Your task to perform on an android device: check android version Image 0: 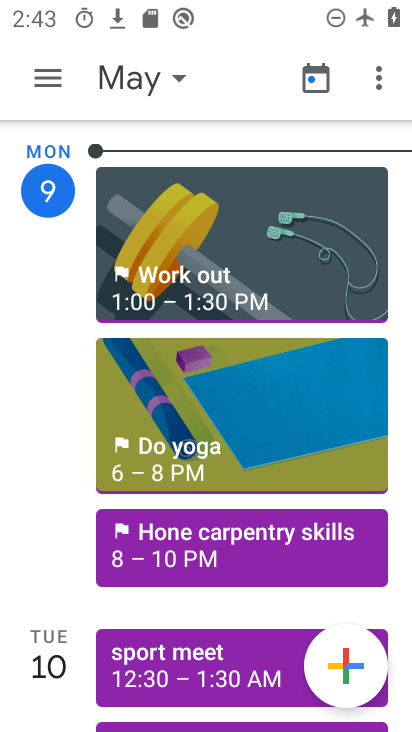
Step 0: drag from (198, 608) to (167, 232)
Your task to perform on an android device: check android version Image 1: 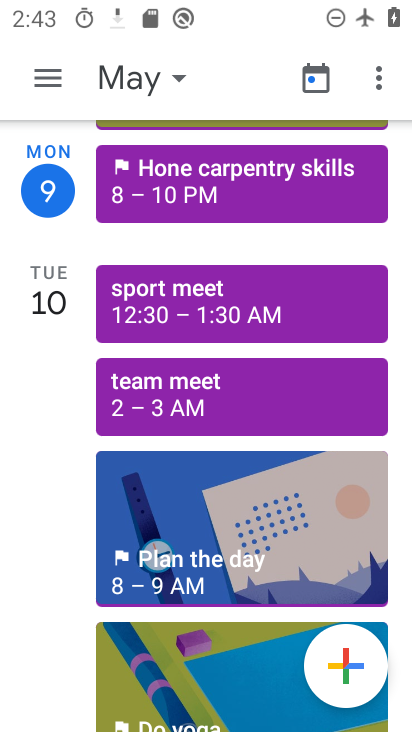
Step 1: drag from (147, 189) to (282, 730)
Your task to perform on an android device: check android version Image 2: 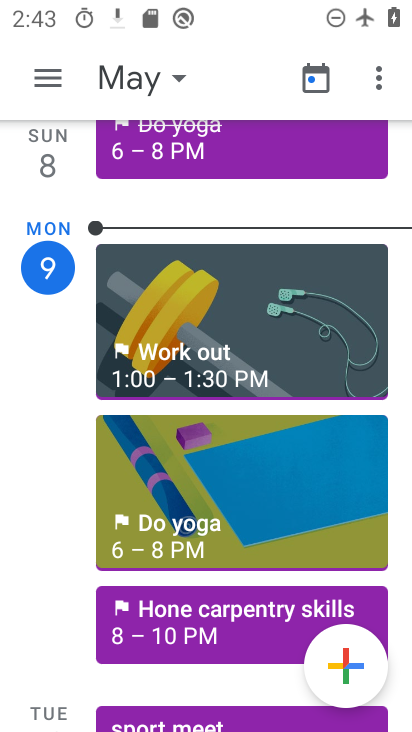
Step 2: click (180, 75)
Your task to perform on an android device: check android version Image 3: 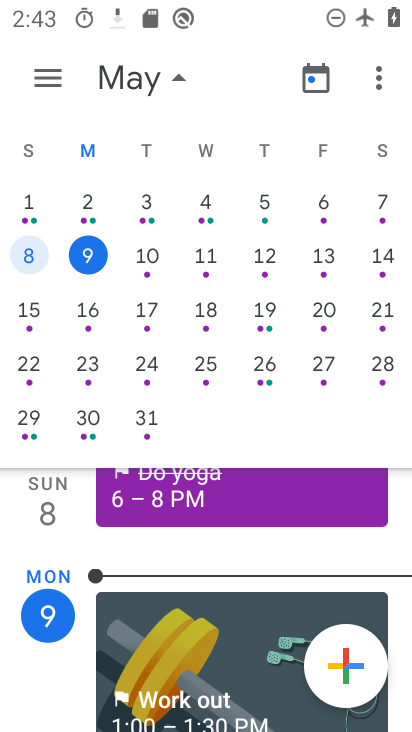
Step 3: press home button
Your task to perform on an android device: check android version Image 4: 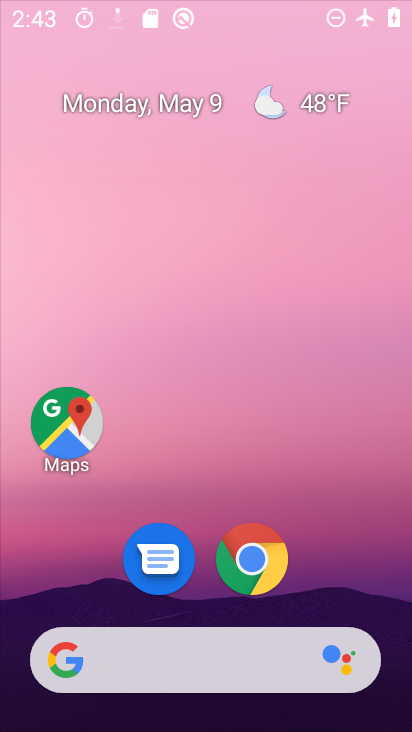
Step 4: drag from (282, 556) to (360, 131)
Your task to perform on an android device: check android version Image 5: 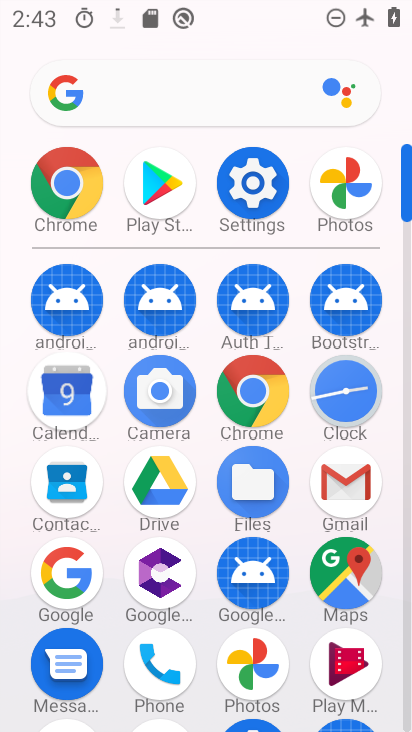
Step 5: drag from (185, 637) to (249, 227)
Your task to perform on an android device: check android version Image 6: 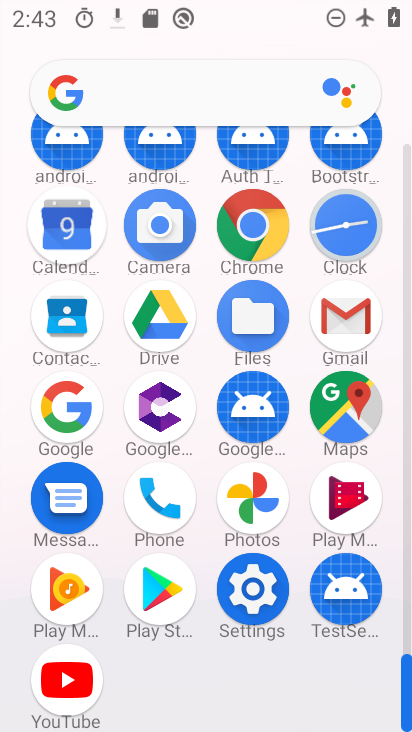
Step 6: click (255, 581)
Your task to perform on an android device: check android version Image 7: 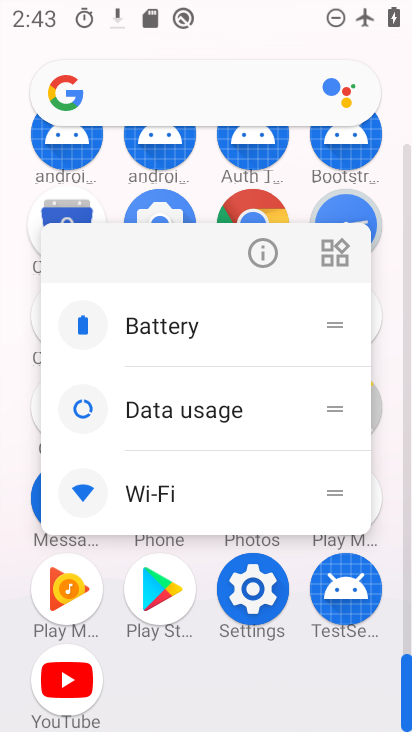
Step 7: click (258, 259)
Your task to perform on an android device: check android version Image 8: 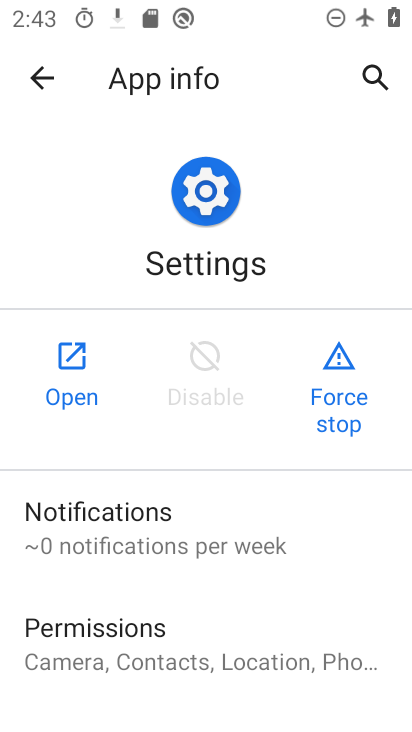
Step 8: click (81, 395)
Your task to perform on an android device: check android version Image 9: 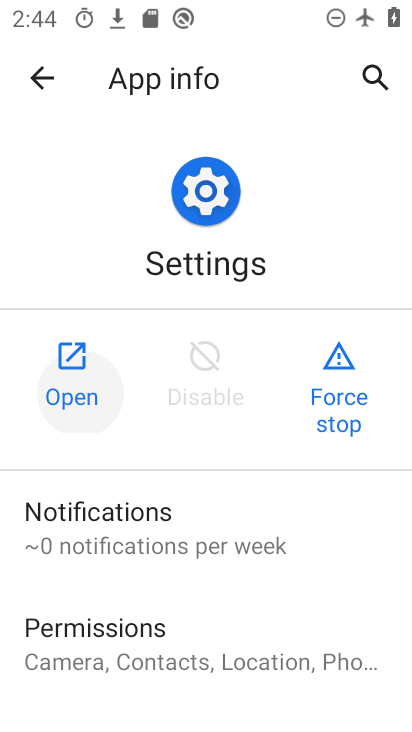
Step 9: click (81, 395)
Your task to perform on an android device: check android version Image 10: 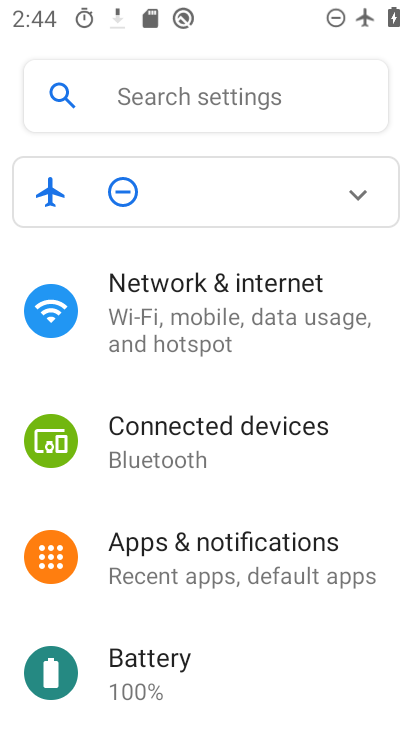
Step 10: drag from (242, 662) to (284, 315)
Your task to perform on an android device: check android version Image 11: 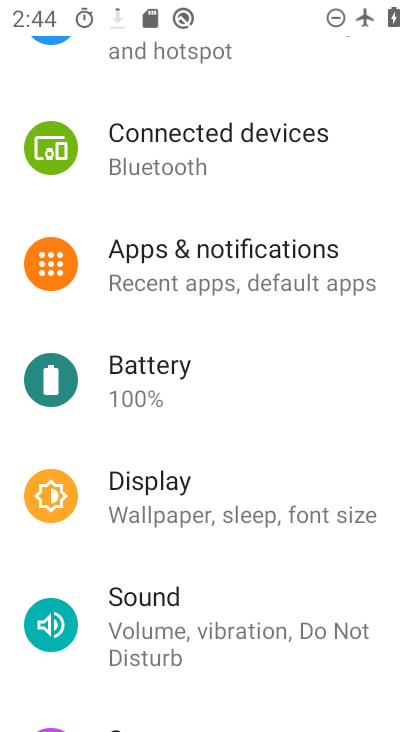
Step 11: drag from (208, 672) to (289, 219)
Your task to perform on an android device: check android version Image 12: 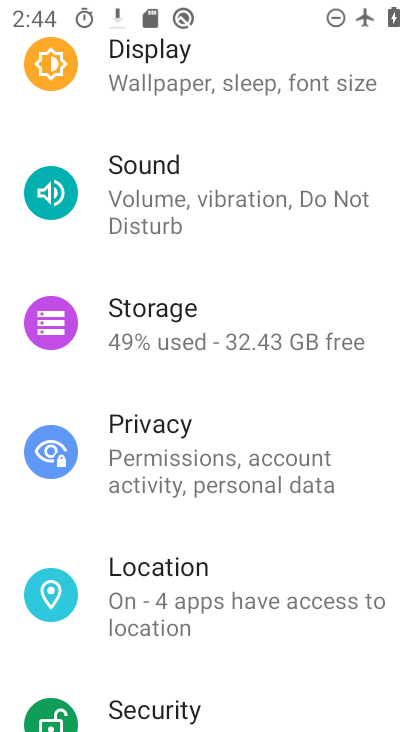
Step 12: drag from (181, 636) to (280, 188)
Your task to perform on an android device: check android version Image 13: 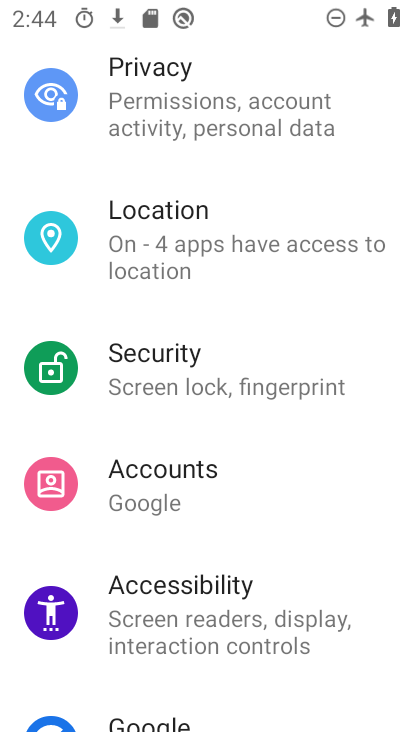
Step 13: drag from (183, 620) to (199, 214)
Your task to perform on an android device: check android version Image 14: 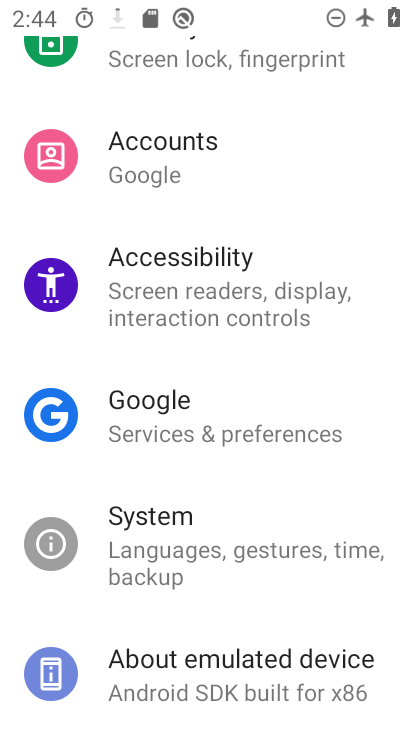
Step 14: drag from (195, 641) to (234, 255)
Your task to perform on an android device: check android version Image 15: 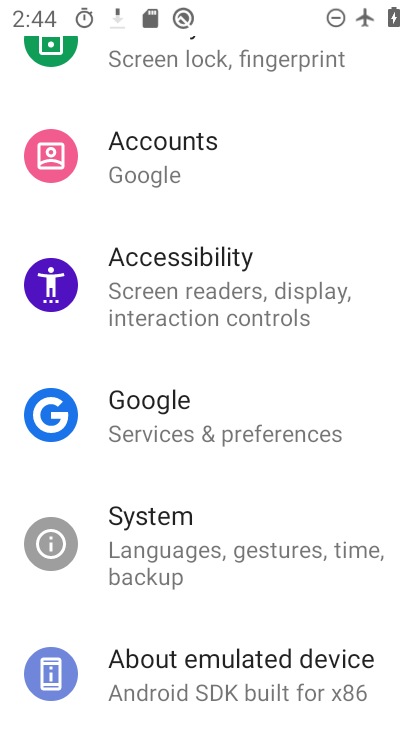
Step 15: click (201, 653)
Your task to perform on an android device: check android version Image 16: 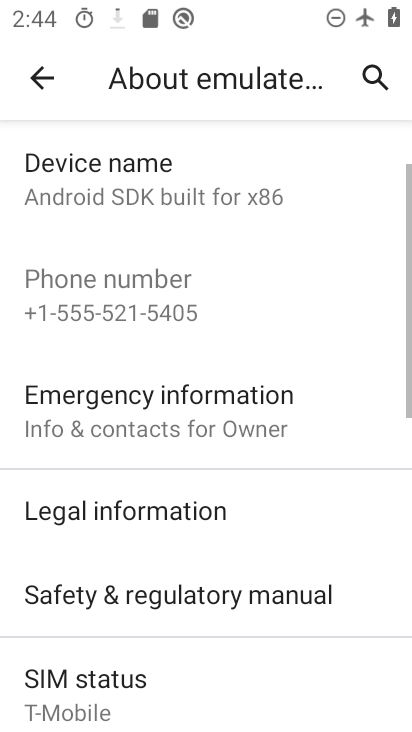
Step 16: drag from (153, 645) to (258, 393)
Your task to perform on an android device: check android version Image 17: 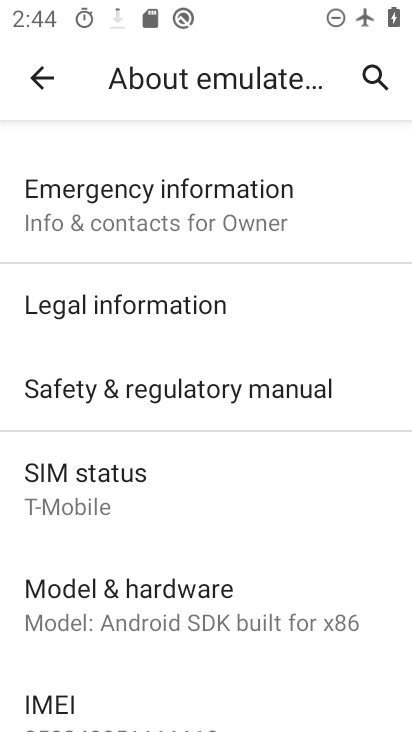
Step 17: drag from (177, 576) to (360, 206)
Your task to perform on an android device: check android version Image 18: 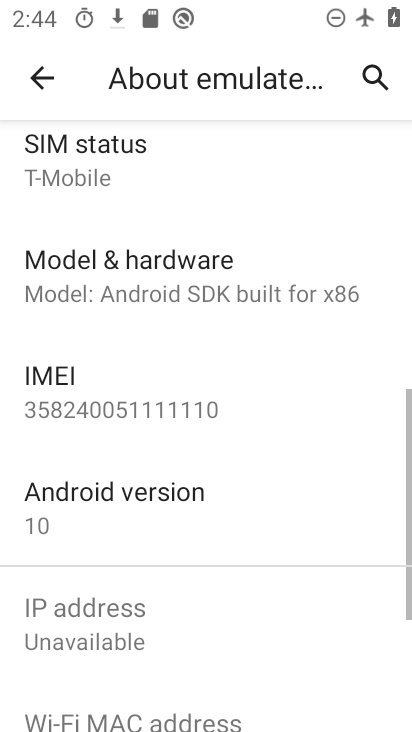
Step 18: drag from (184, 489) to (367, 253)
Your task to perform on an android device: check android version Image 19: 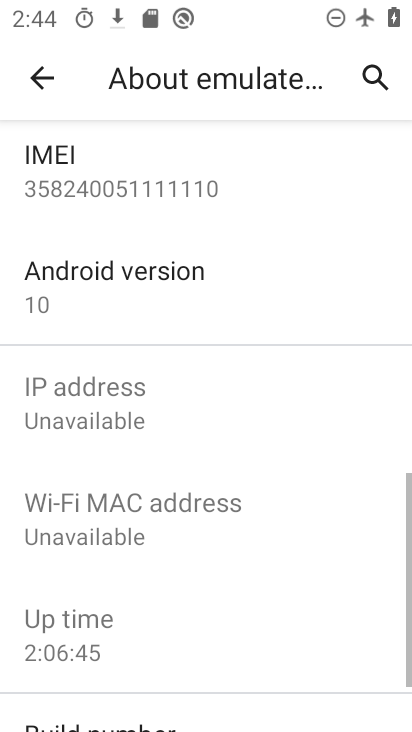
Step 19: click (162, 328)
Your task to perform on an android device: check android version Image 20: 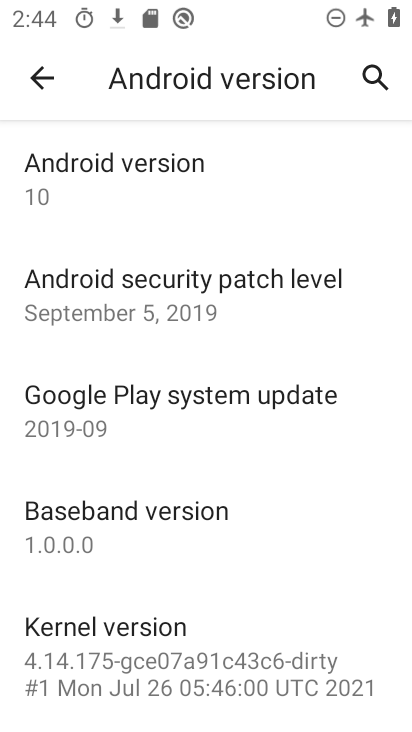
Step 20: task complete